Your task to perform on an android device: set an alarm Image 0: 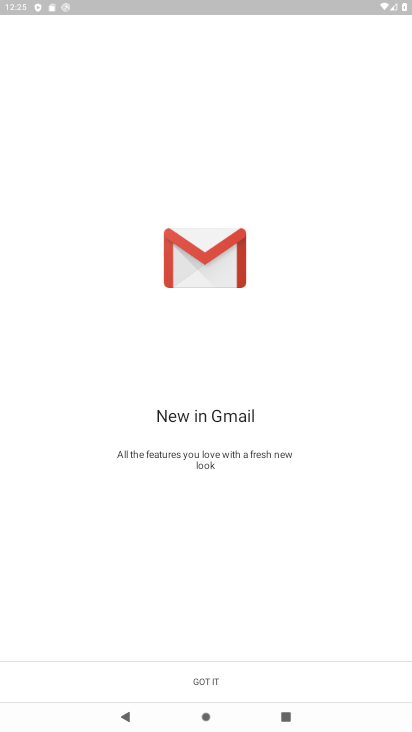
Step 0: press home button
Your task to perform on an android device: set an alarm Image 1: 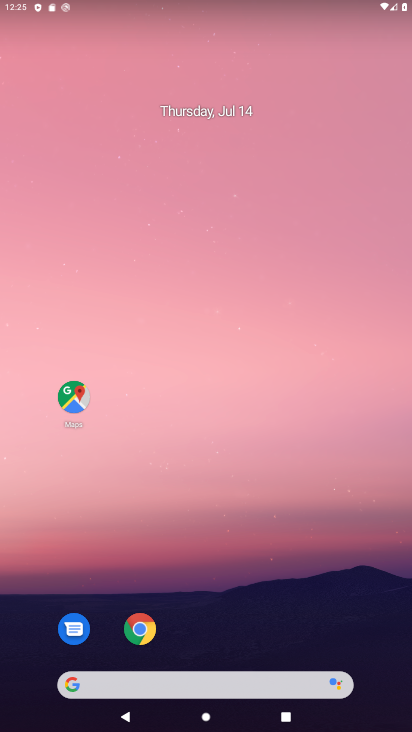
Step 1: drag from (207, 651) to (143, 24)
Your task to perform on an android device: set an alarm Image 2: 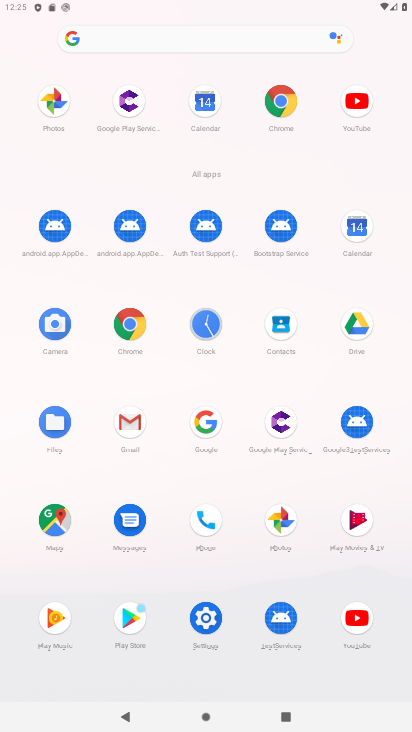
Step 2: click (213, 330)
Your task to perform on an android device: set an alarm Image 3: 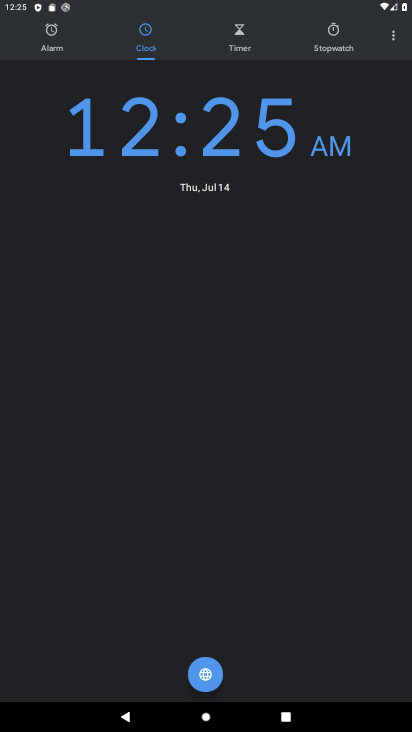
Step 3: click (54, 34)
Your task to perform on an android device: set an alarm Image 4: 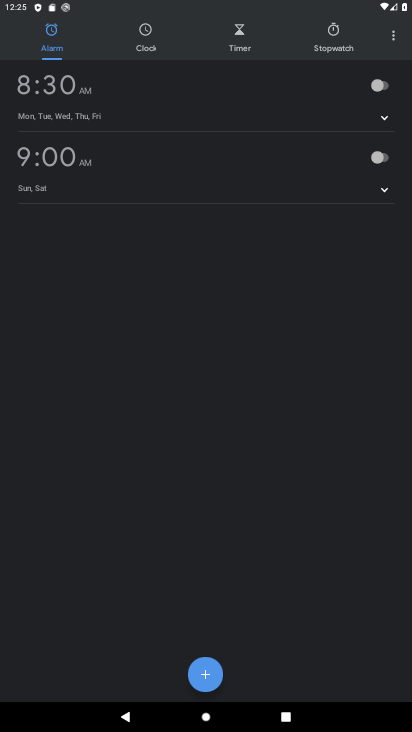
Step 4: click (208, 668)
Your task to perform on an android device: set an alarm Image 5: 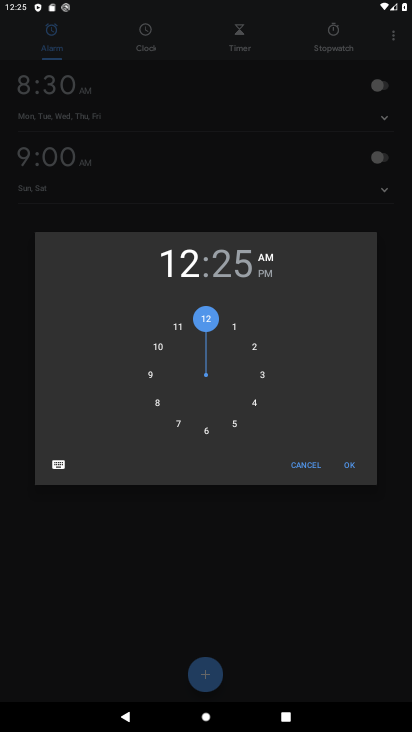
Step 5: click (346, 463)
Your task to perform on an android device: set an alarm Image 6: 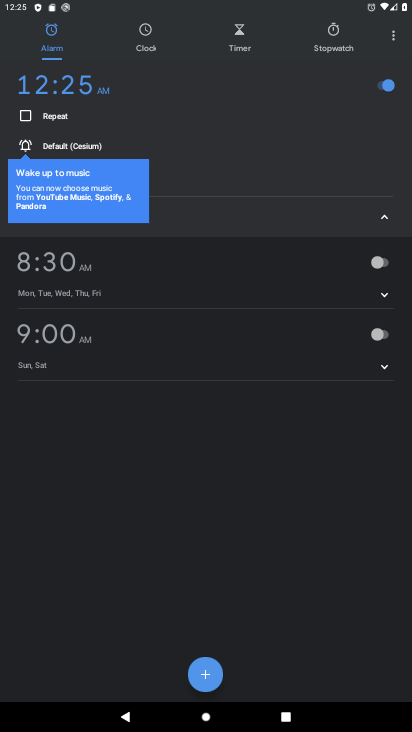
Step 6: task complete